Your task to perform on an android device: What's the weather? Image 0: 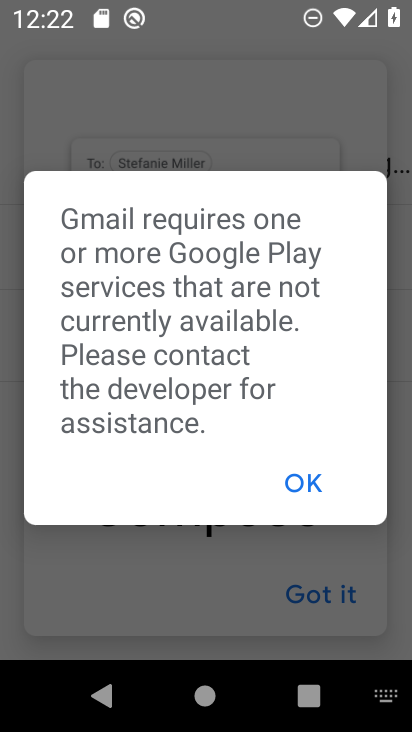
Step 0: press home button
Your task to perform on an android device: What's the weather? Image 1: 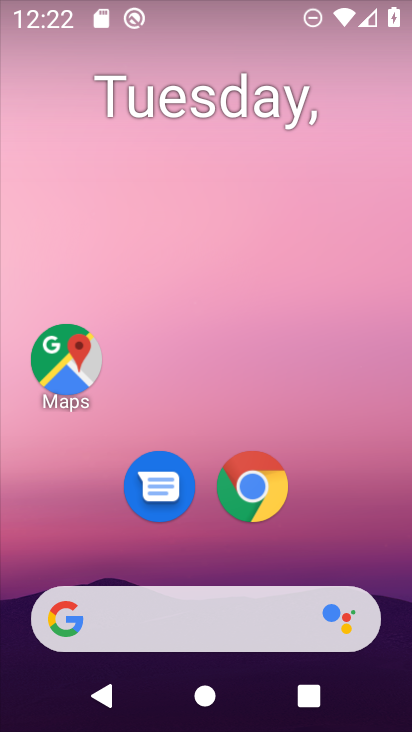
Step 1: drag from (204, 568) to (188, 175)
Your task to perform on an android device: What's the weather? Image 2: 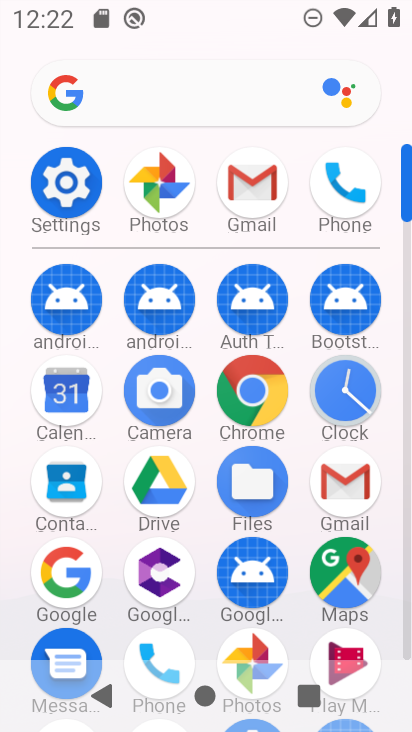
Step 2: click (54, 577)
Your task to perform on an android device: What's the weather? Image 3: 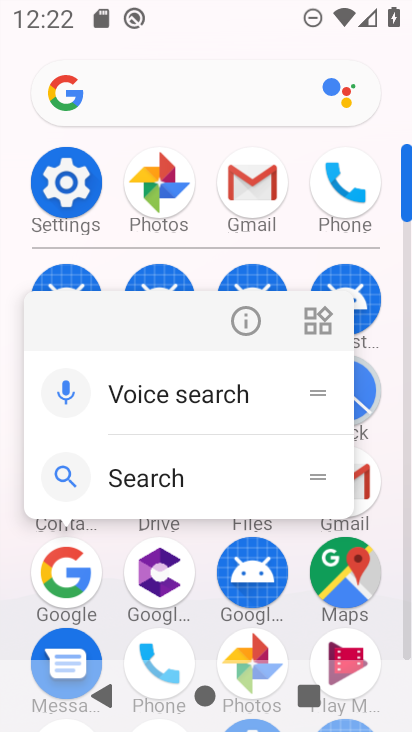
Step 3: click (62, 572)
Your task to perform on an android device: What's the weather? Image 4: 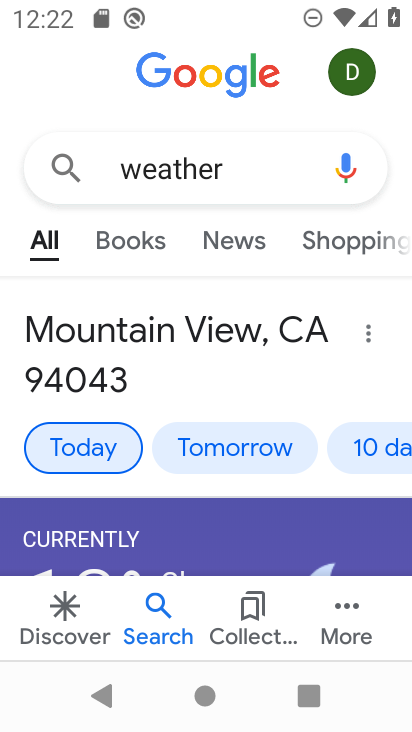
Step 4: task complete